Your task to perform on an android device: open app "Facebook Lite" Image 0: 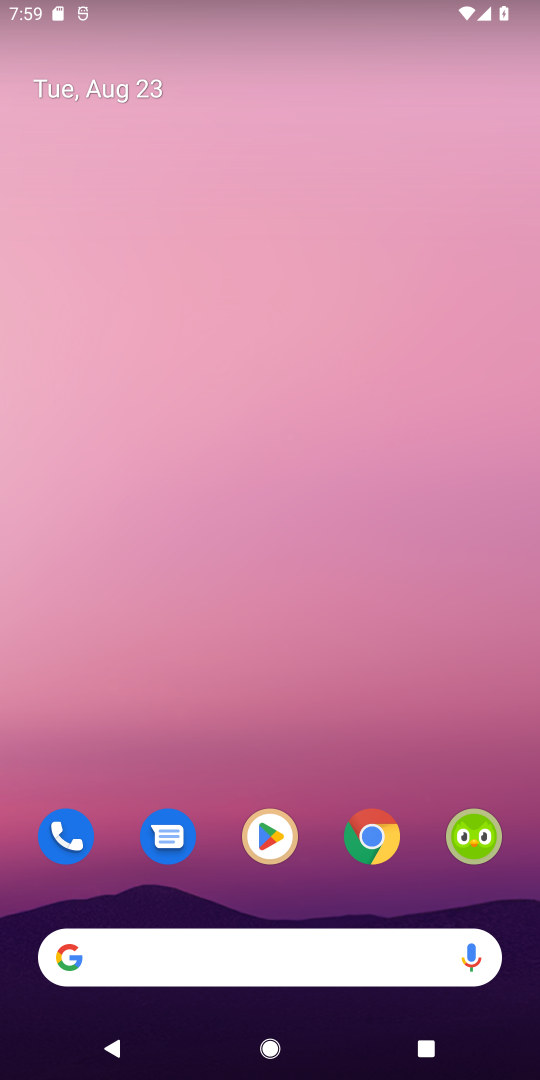
Step 0: click (270, 828)
Your task to perform on an android device: open app "Facebook Lite" Image 1: 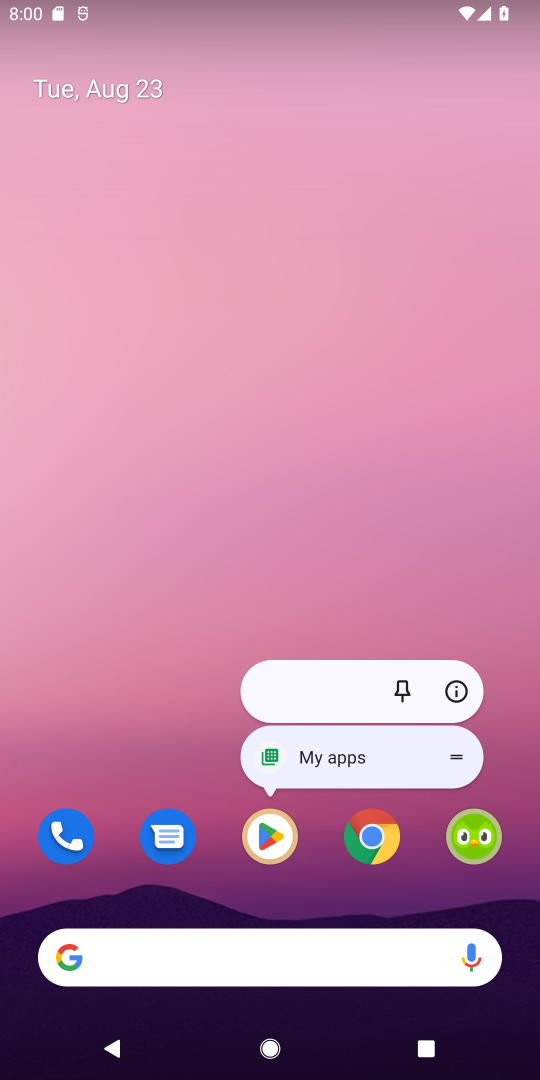
Step 1: click (267, 840)
Your task to perform on an android device: open app "Facebook Lite" Image 2: 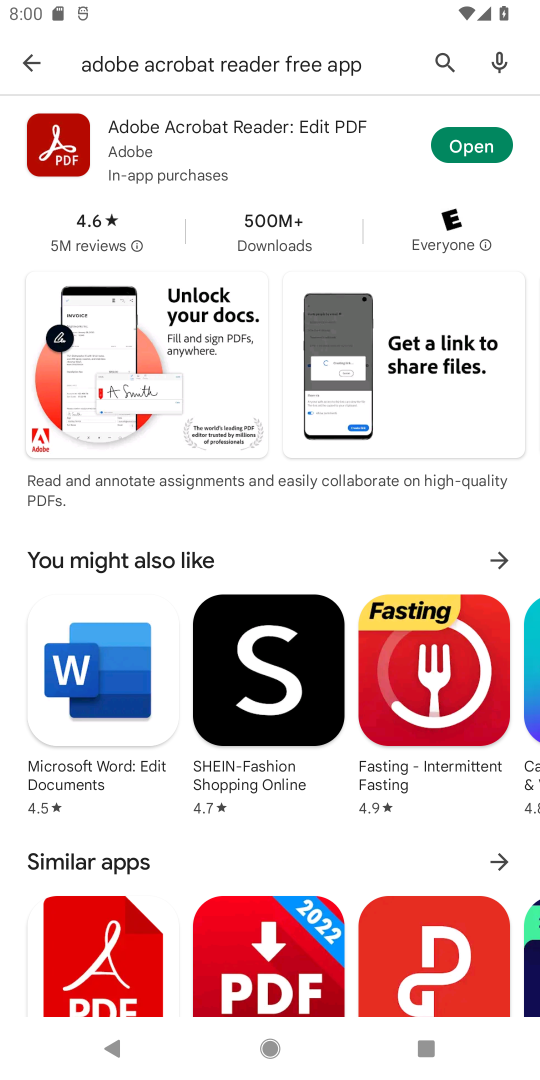
Step 2: click (441, 57)
Your task to perform on an android device: open app "Facebook Lite" Image 3: 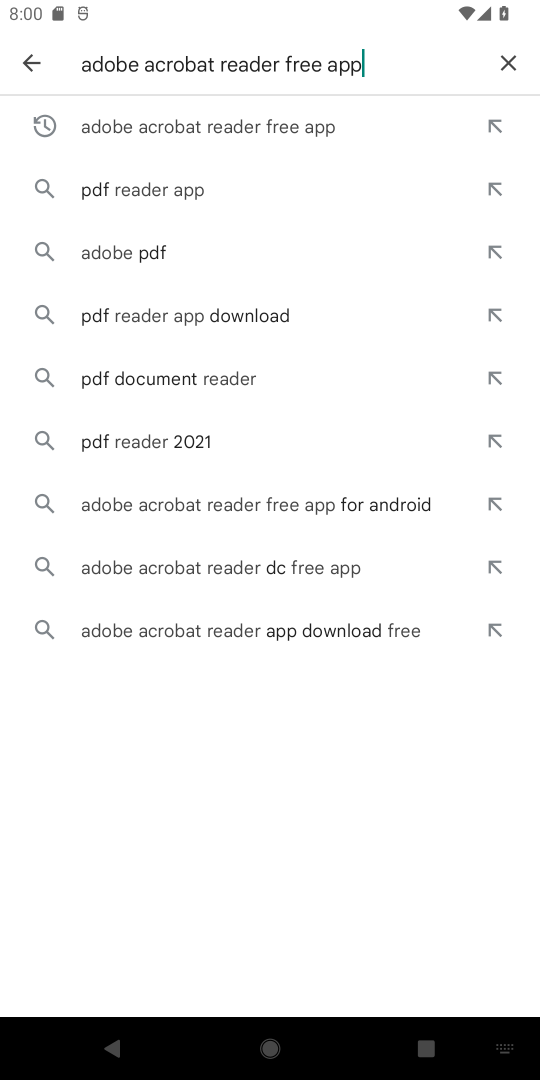
Step 3: click (515, 60)
Your task to perform on an android device: open app "Facebook Lite" Image 4: 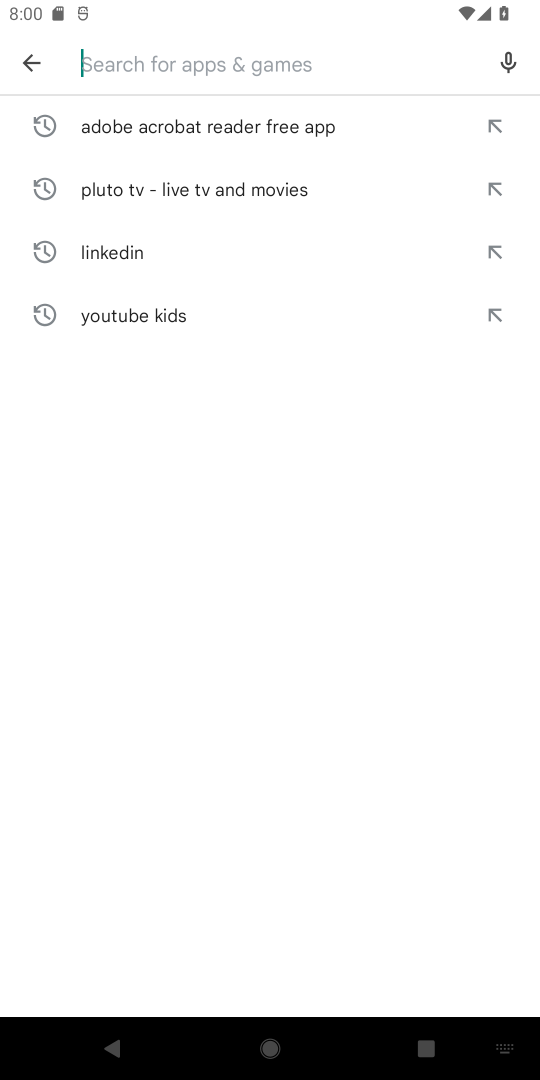
Step 4: type "Facebook Lite"
Your task to perform on an android device: open app "Facebook Lite" Image 5: 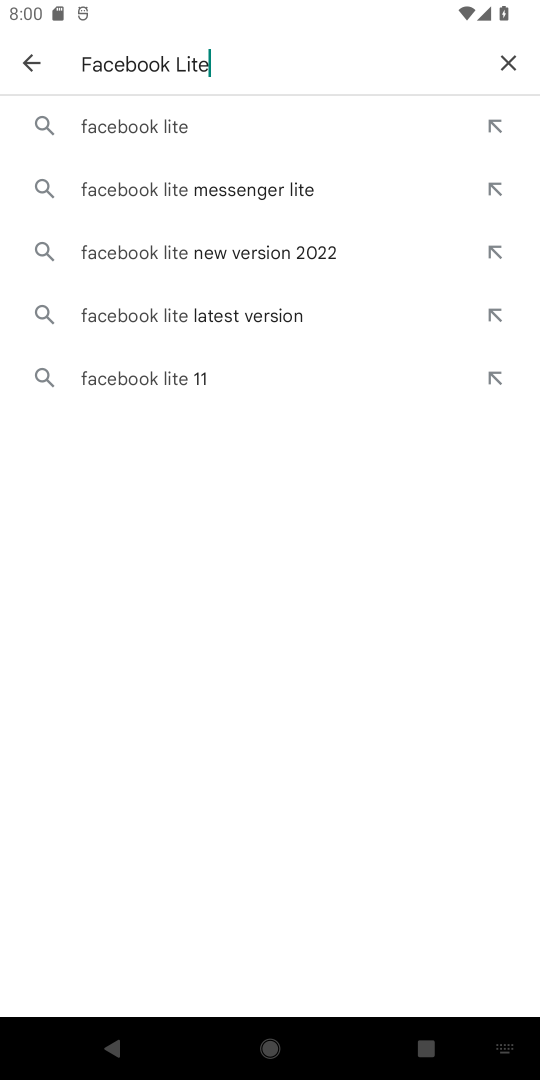
Step 5: click (173, 112)
Your task to perform on an android device: open app "Facebook Lite" Image 6: 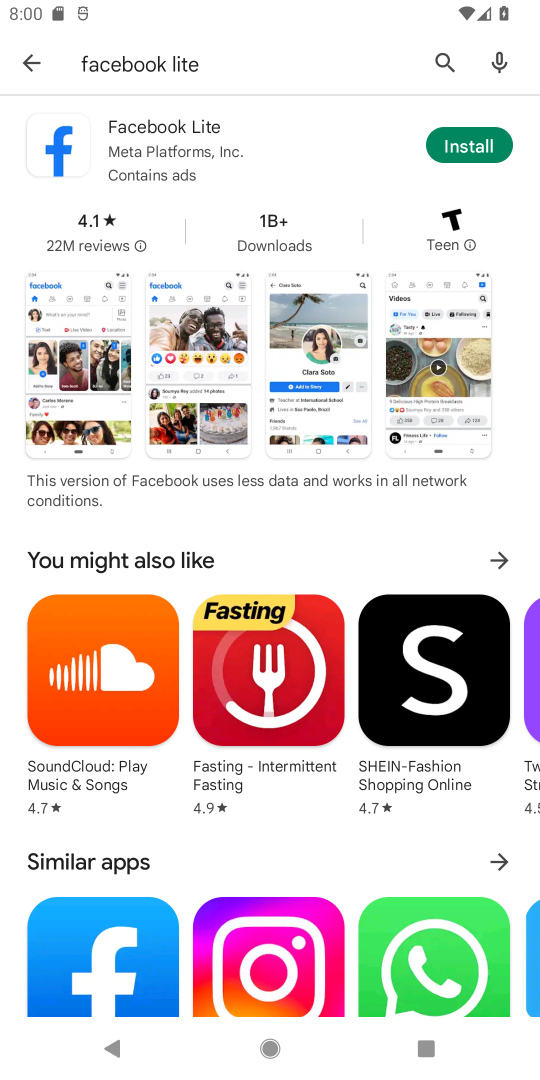
Step 6: task complete